Your task to perform on an android device: turn off picture-in-picture Image 0: 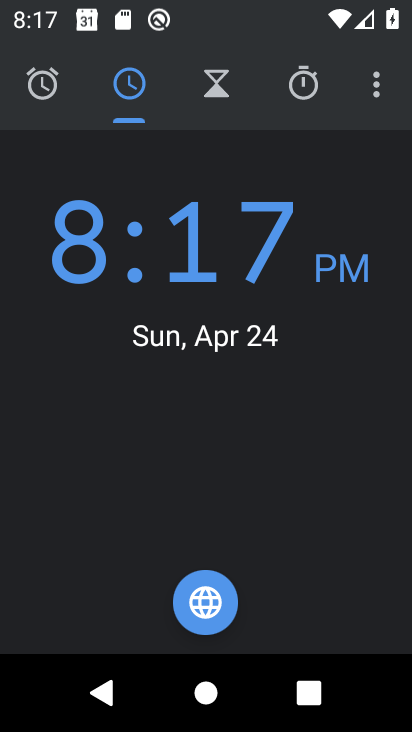
Step 0: press home button
Your task to perform on an android device: turn off picture-in-picture Image 1: 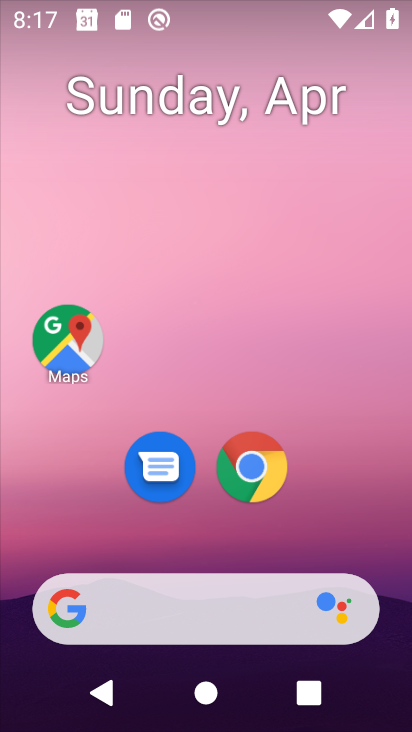
Step 1: click (266, 478)
Your task to perform on an android device: turn off picture-in-picture Image 2: 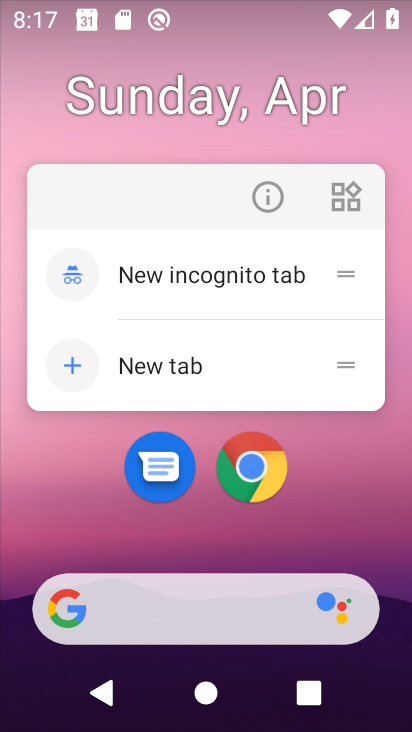
Step 2: click (273, 189)
Your task to perform on an android device: turn off picture-in-picture Image 3: 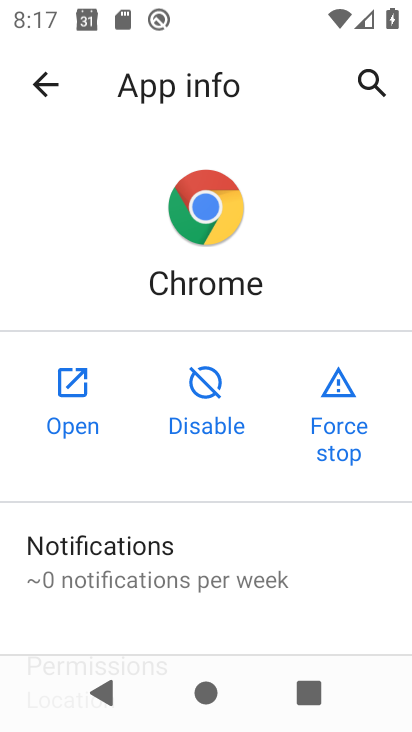
Step 3: drag from (185, 547) to (213, 308)
Your task to perform on an android device: turn off picture-in-picture Image 4: 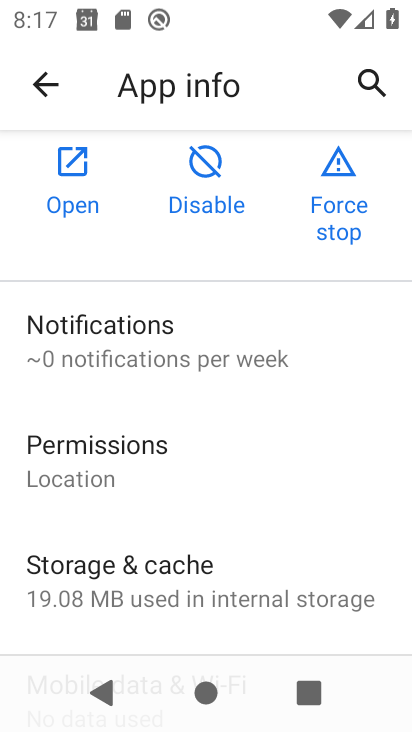
Step 4: drag from (213, 512) to (244, 297)
Your task to perform on an android device: turn off picture-in-picture Image 5: 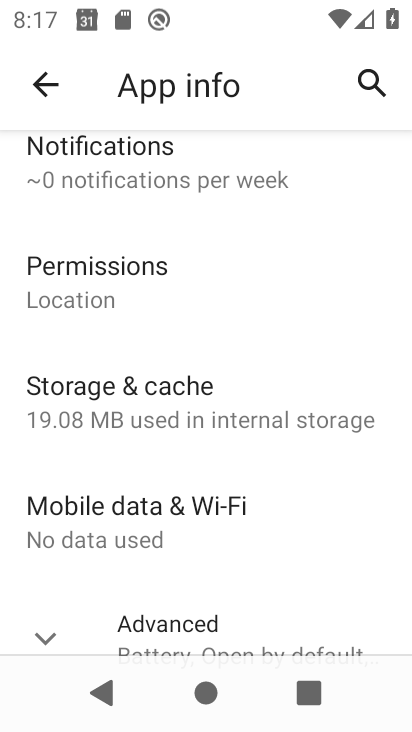
Step 5: drag from (225, 600) to (229, 377)
Your task to perform on an android device: turn off picture-in-picture Image 6: 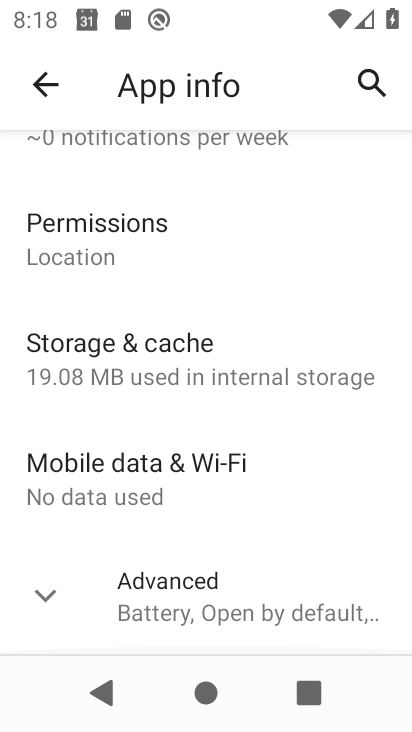
Step 6: click (238, 591)
Your task to perform on an android device: turn off picture-in-picture Image 7: 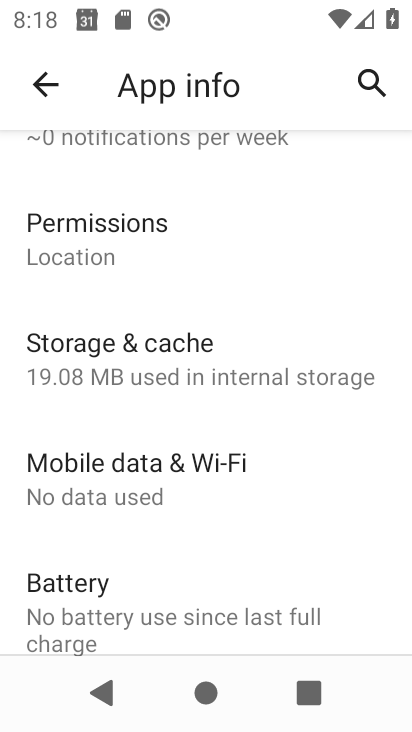
Step 7: drag from (232, 610) to (255, 418)
Your task to perform on an android device: turn off picture-in-picture Image 8: 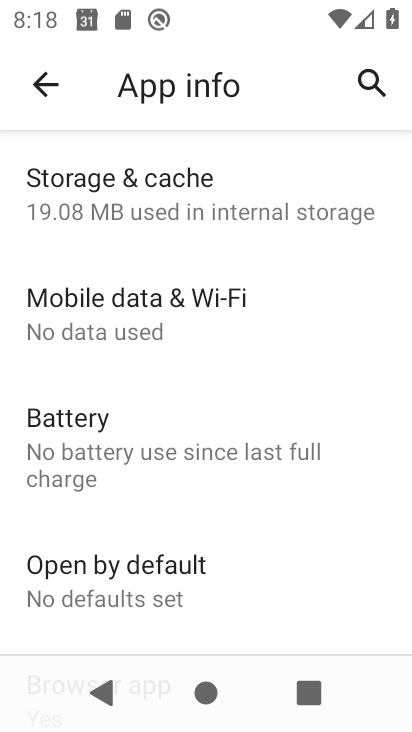
Step 8: drag from (253, 564) to (275, 369)
Your task to perform on an android device: turn off picture-in-picture Image 9: 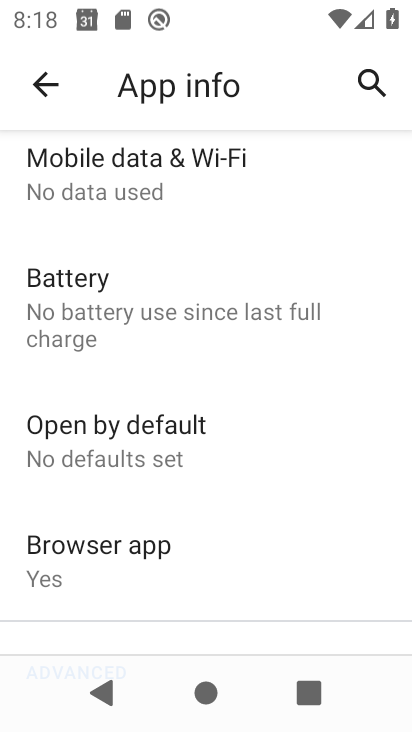
Step 9: drag from (288, 539) to (294, 373)
Your task to perform on an android device: turn off picture-in-picture Image 10: 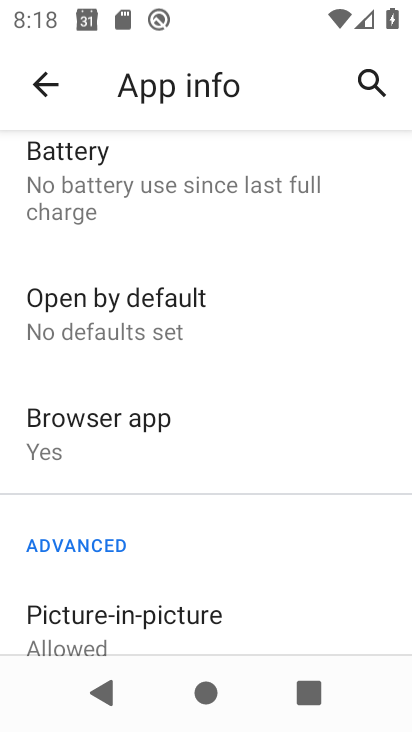
Step 10: click (233, 611)
Your task to perform on an android device: turn off picture-in-picture Image 11: 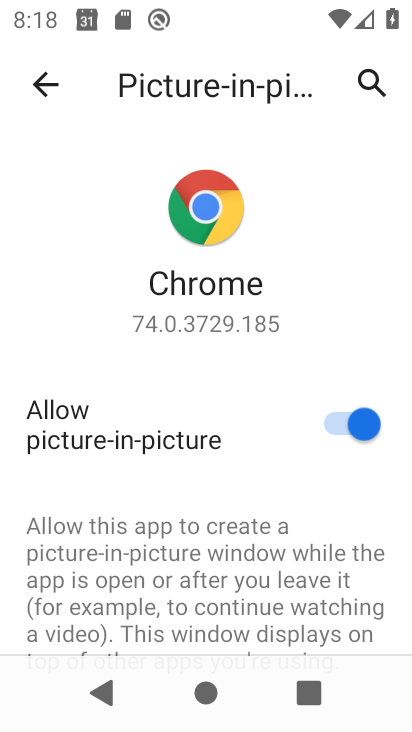
Step 11: click (353, 424)
Your task to perform on an android device: turn off picture-in-picture Image 12: 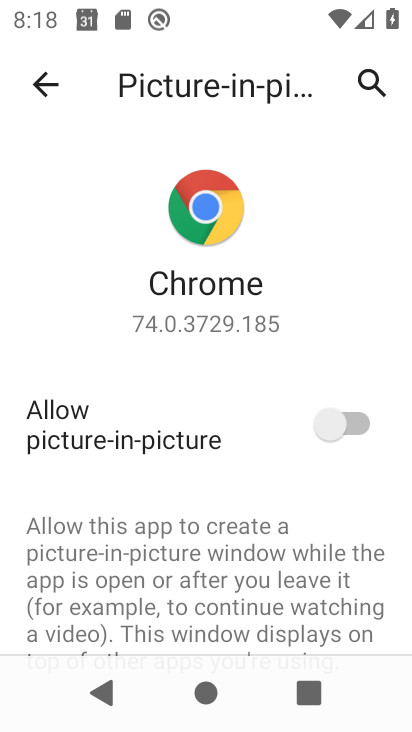
Step 12: task complete